Your task to perform on an android device: What is the news today? Image 0: 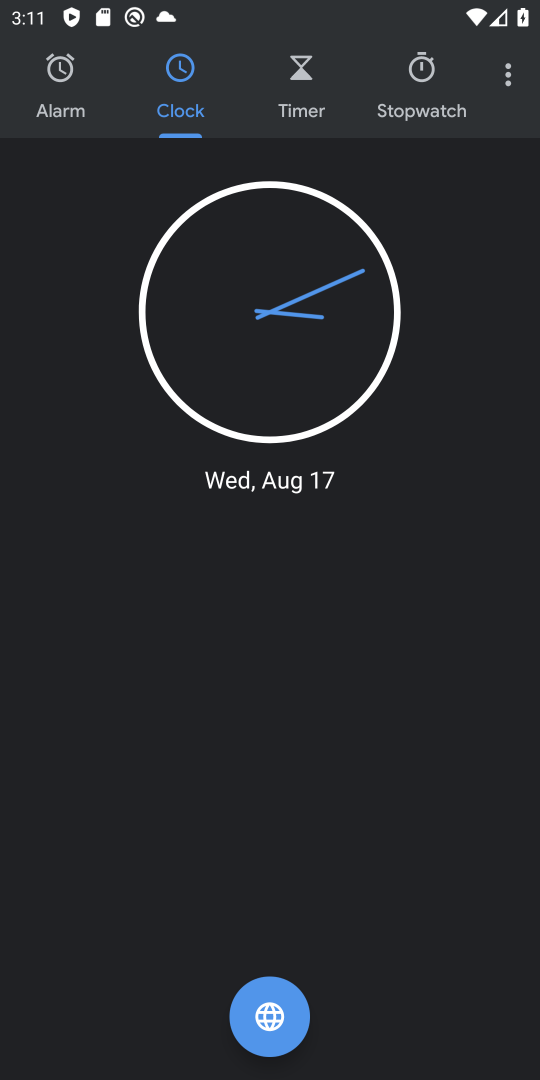
Step 0: press home button
Your task to perform on an android device: What is the news today? Image 1: 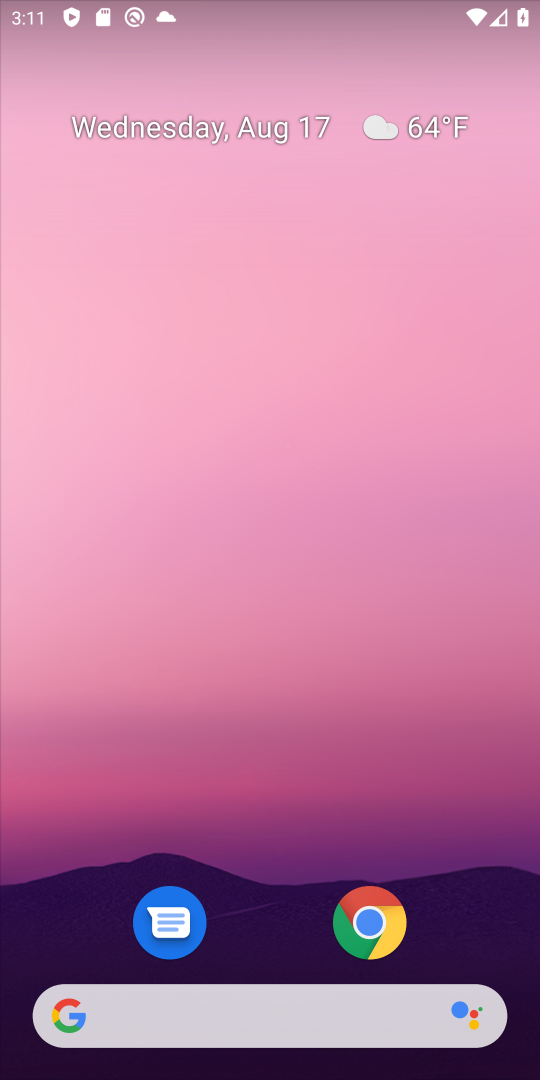
Step 1: click (371, 1030)
Your task to perform on an android device: What is the news today? Image 2: 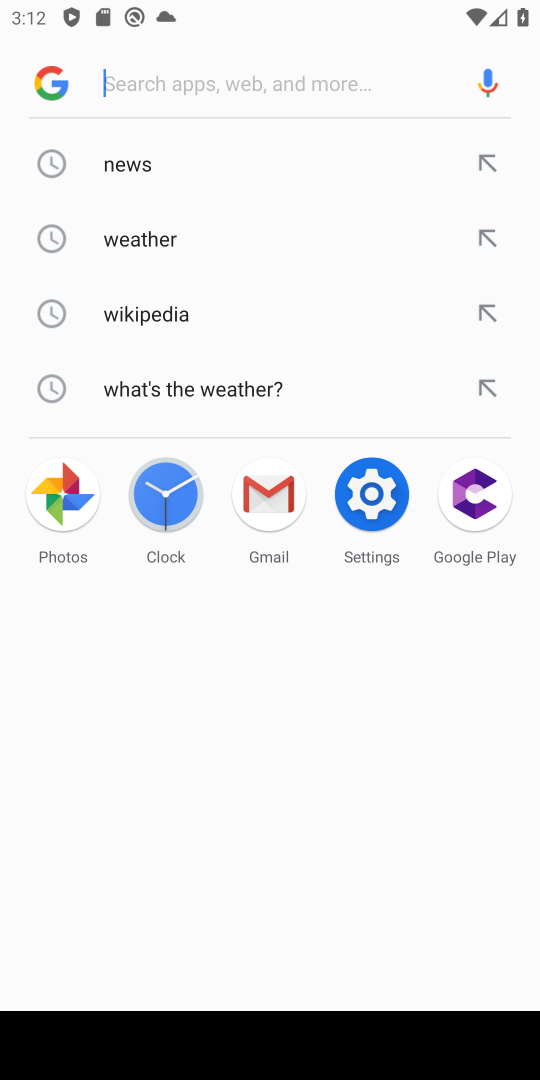
Step 2: click (173, 169)
Your task to perform on an android device: What is the news today? Image 3: 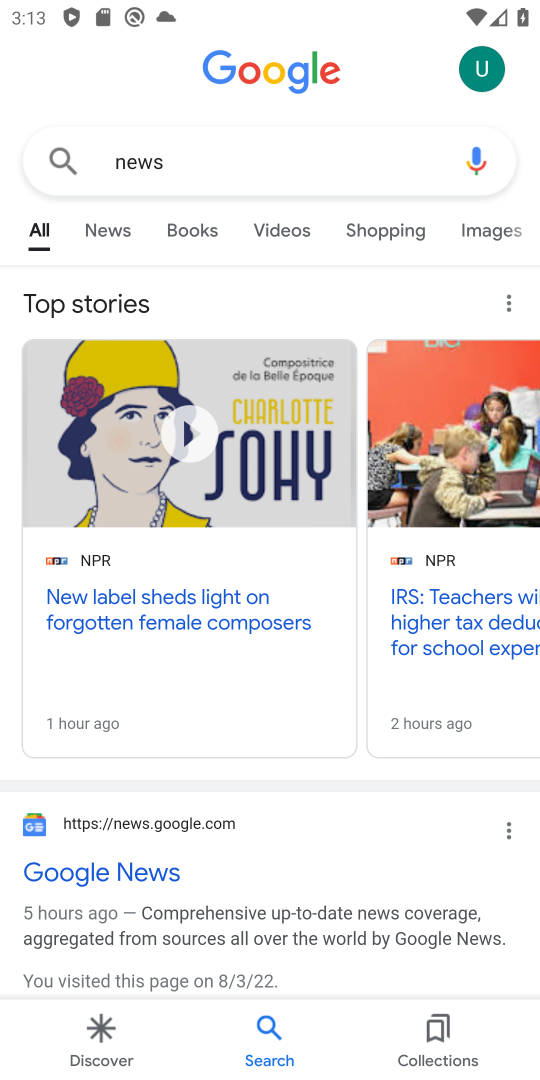
Step 3: task complete